Your task to perform on an android device: turn on the 12-hour format for clock Image 0: 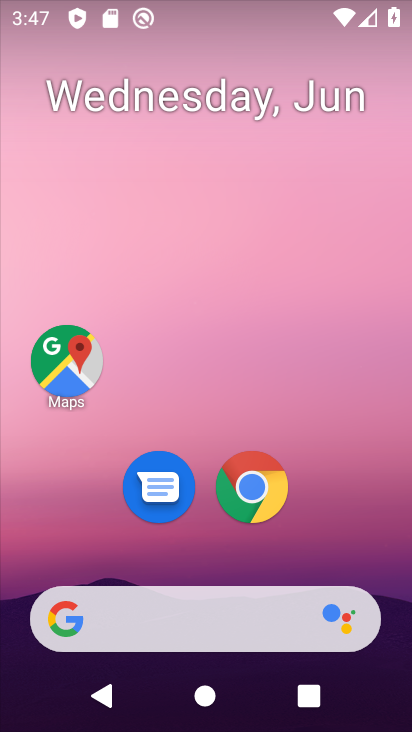
Step 0: drag from (240, 531) to (270, 128)
Your task to perform on an android device: turn on the 12-hour format for clock Image 1: 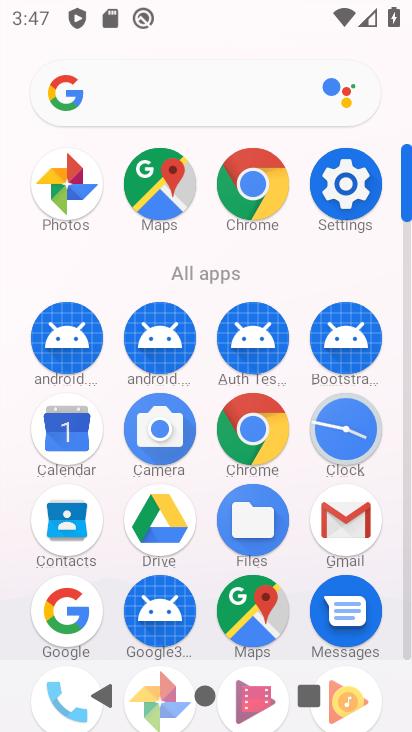
Step 1: click (348, 423)
Your task to perform on an android device: turn on the 12-hour format for clock Image 2: 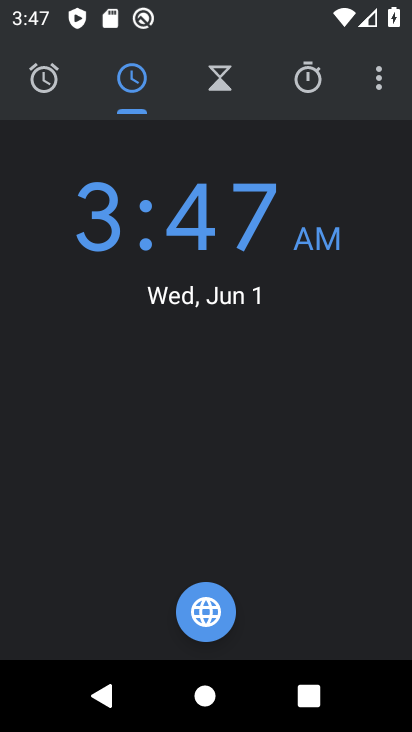
Step 2: press home button
Your task to perform on an android device: turn on the 12-hour format for clock Image 3: 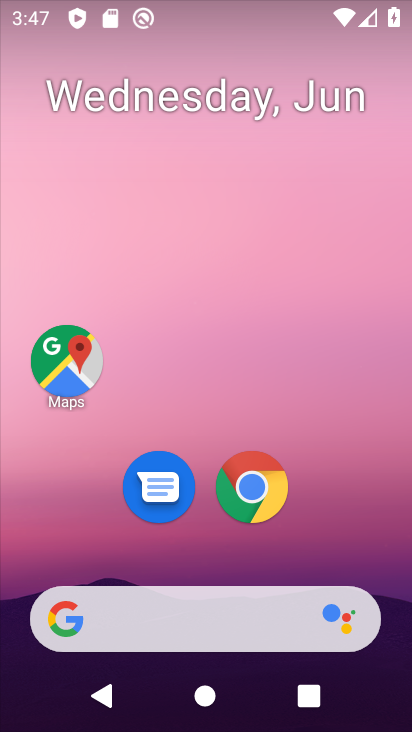
Step 3: drag from (174, 578) to (344, 78)
Your task to perform on an android device: turn on the 12-hour format for clock Image 4: 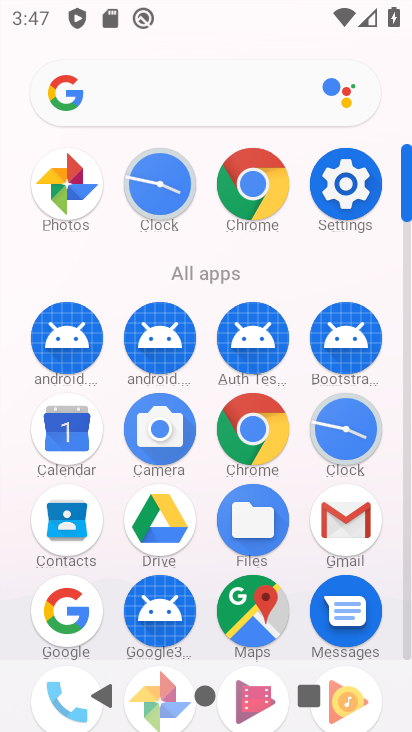
Step 4: click (359, 212)
Your task to perform on an android device: turn on the 12-hour format for clock Image 5: 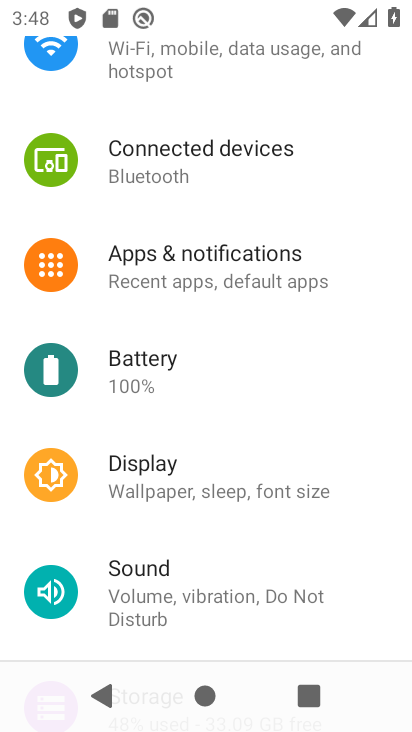
Step 5: drag from (196, 337) to (288, 2)
Your task to perform on an android device: turn on the 12-hour format for clock Image 6: 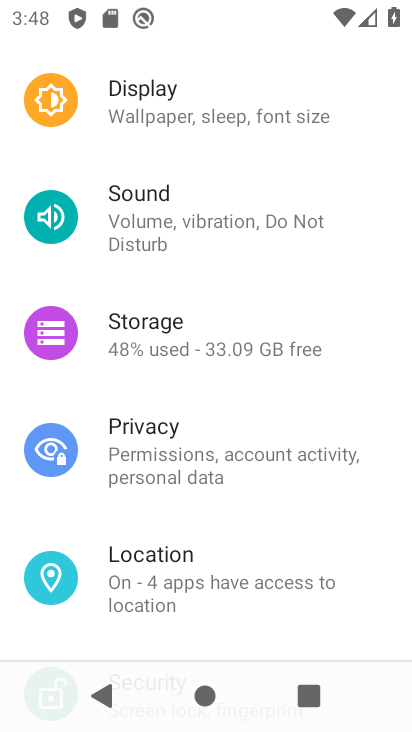
Step 6: drag from (238, 453) to (302, 0)
Your task to perform on an android device: turn on the 12-hour format for clock Image 7: 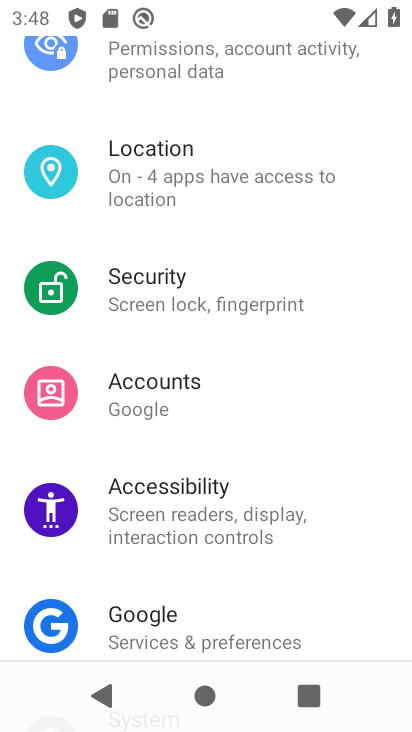
Step 7: drag from (243, 580) to (306, 179)
Your task to perform on an android device: turn on the 12-hour format for clock Image 8: 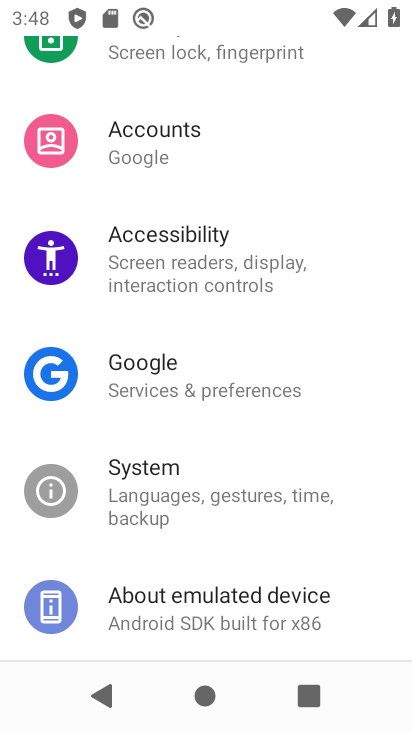
Step 8: click (148, 492)
Your task to perform on an android device: turn on the 12-hour format for clock Image 9: 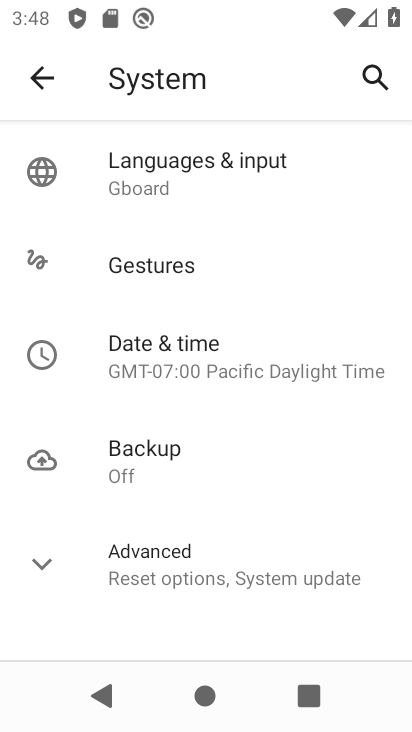
Step 9: drag from (244, 530) to (267, 155)
Your task to perform on an android device: turn on the 12-hour format for clock Image 10: 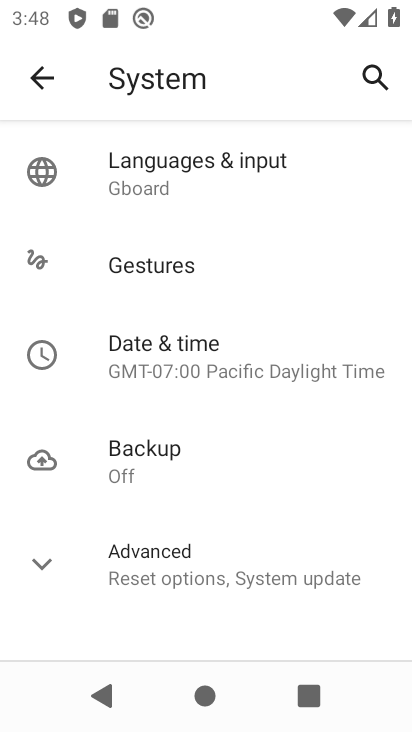
Step 10: click (219, 362)
Your task to perform on an android device: turn on the 12-hour format for clock Image 11: 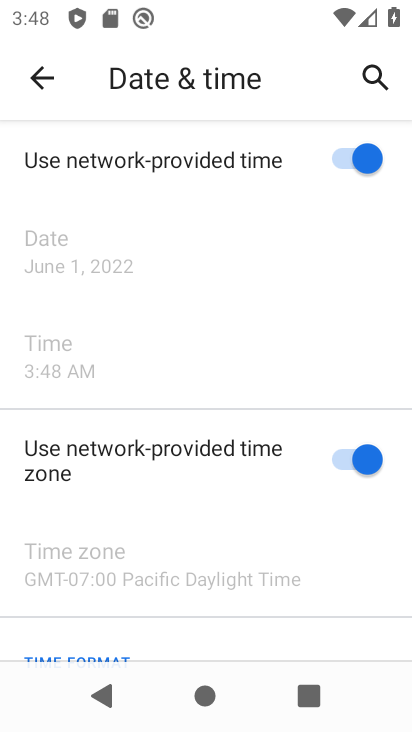
Step 11: task complete